Your task to perform on an android device: Find coffee shops on Maps Image 0: 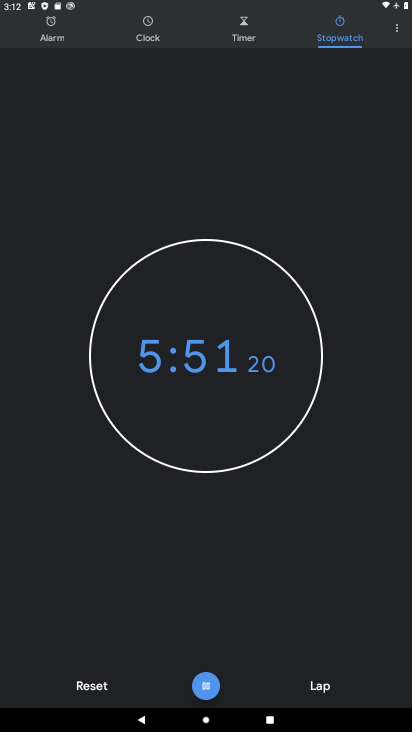
Step 0: press home button
Your task to perform on an android device: Find coffee shops on Maps Image 1: 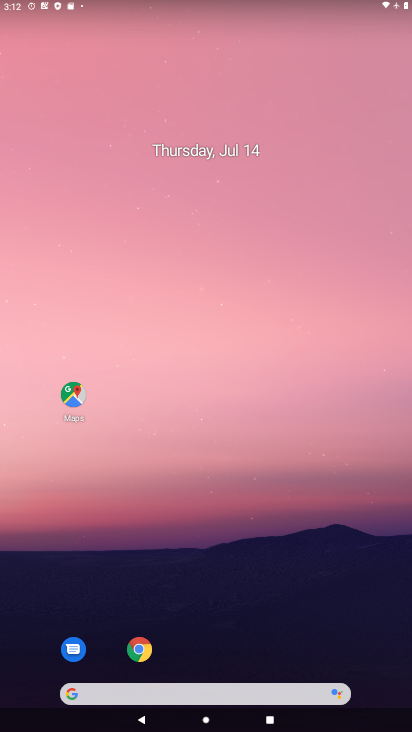
Step 1: click (75, 394)
Your task to perform on an android device: Find coffee shops on Maps Image 2: 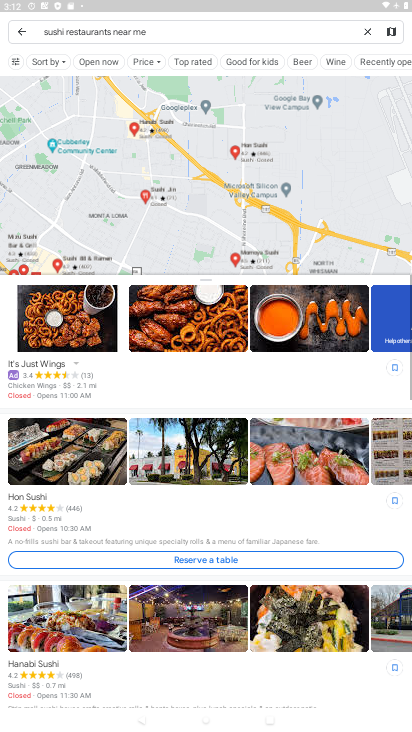
Step 2: click (365, 27)
Your task to perform on an android device: Find coffee shops on Maps Image 3: 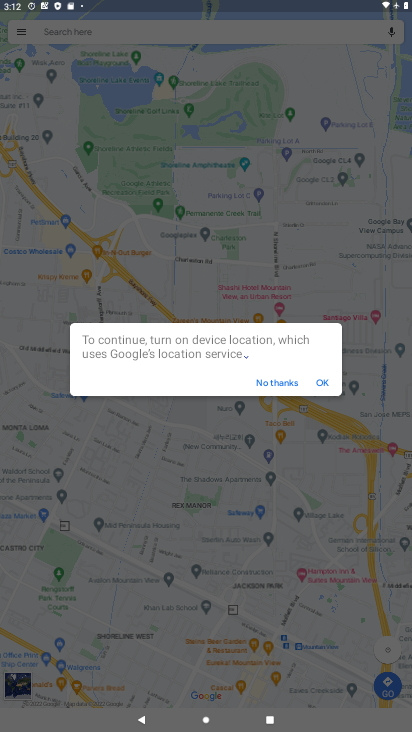
Step 3: click (275, 390)
Your task to perform on an android device: Find coffee shops on Maps Image 4: 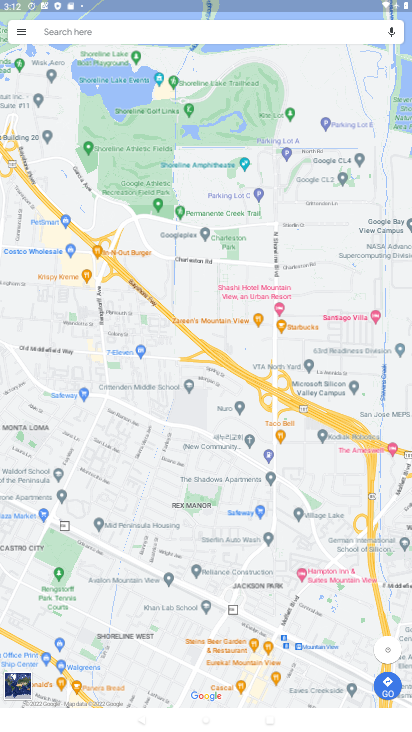
Step 4: click (176, 30)
Your task to perform on an android device: Find coffee shops on Maps Image 5: 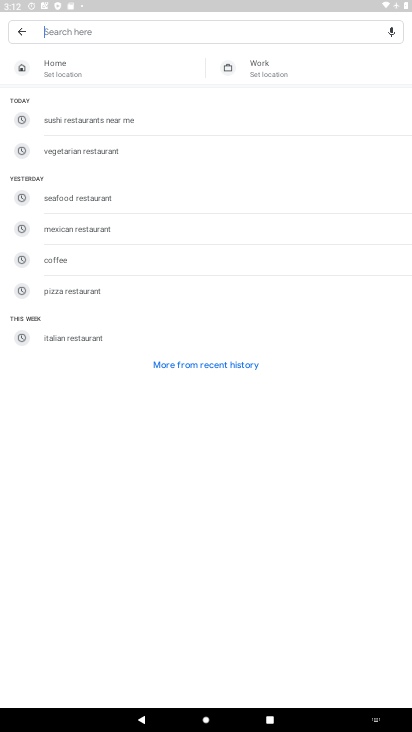
Step 5: type "coffee shops"
Your task to perform on an android device: Find coffee shops on Maps Image 6: 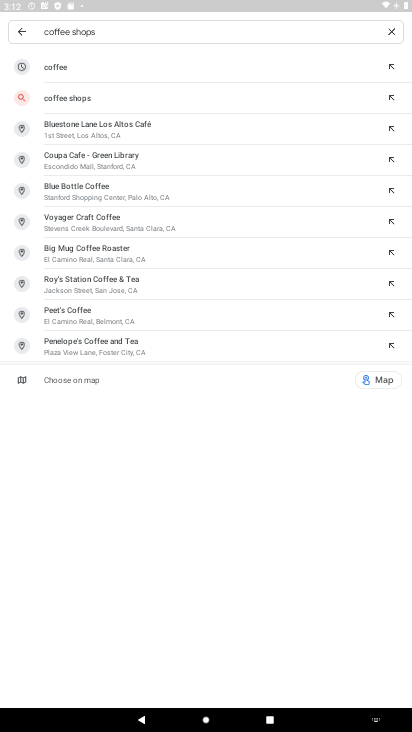
Step 6: click (114, 94)
Your task to perform on an android device: Find coffee shops on Maps Image 7: 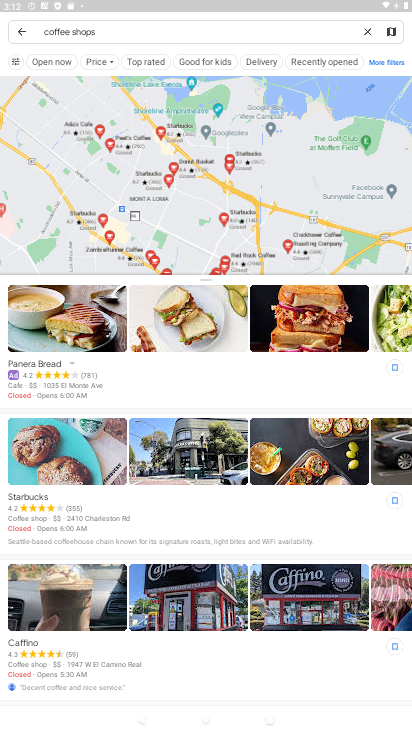
Step 7: task complete